Your task to perform on an android device: turn off notifications in google photos Image 0: 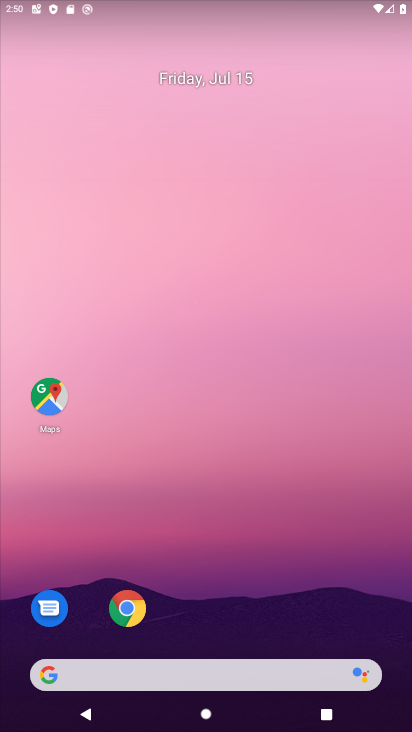
Step 0: drag from (215, 647) to (262, 115)
Your task to perform on an android device: turn off notifications in google photos Image 1: 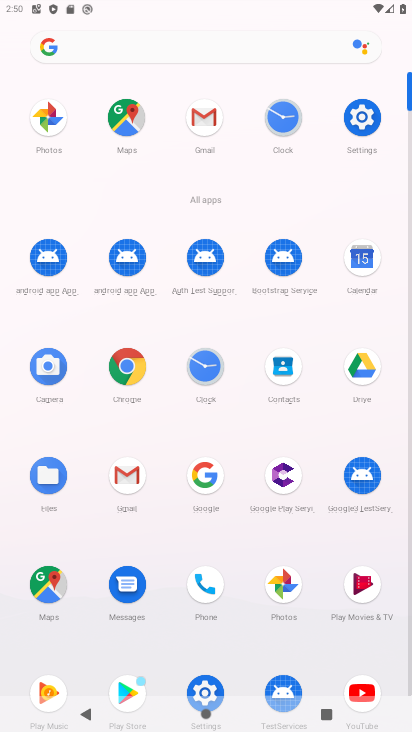
Step 1: click (283, 587)
Your task to perform on an android device: turn off notifications in google photos Image 2: 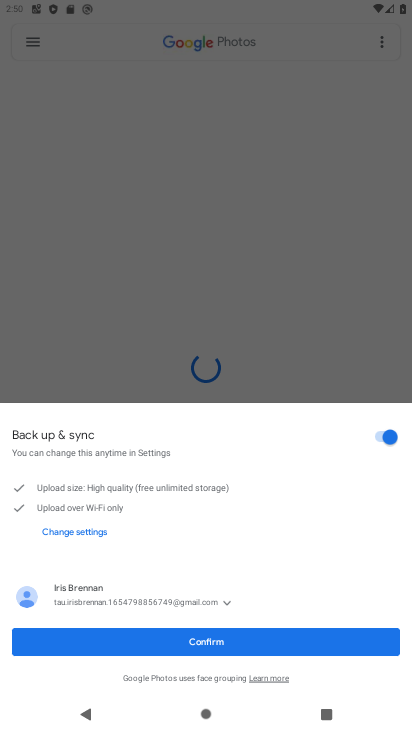
Step 2: click (245, 645)
Your task to perform on an android device: turn off notifications in google photos Image 3: 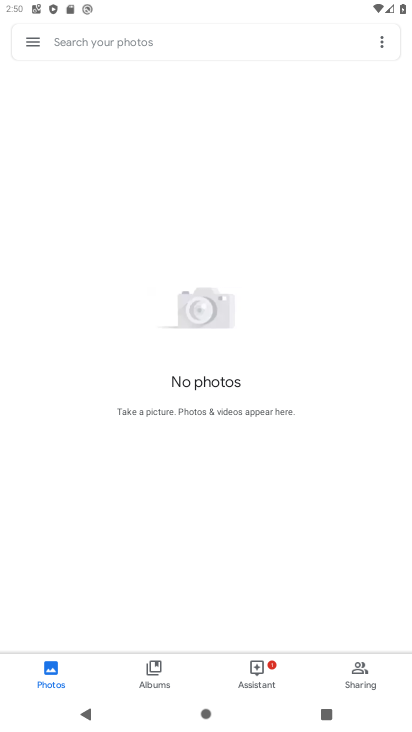
Step 3: click (35, 53)
Your task to perform on an android device: turn off notifications in google photos Image 4: 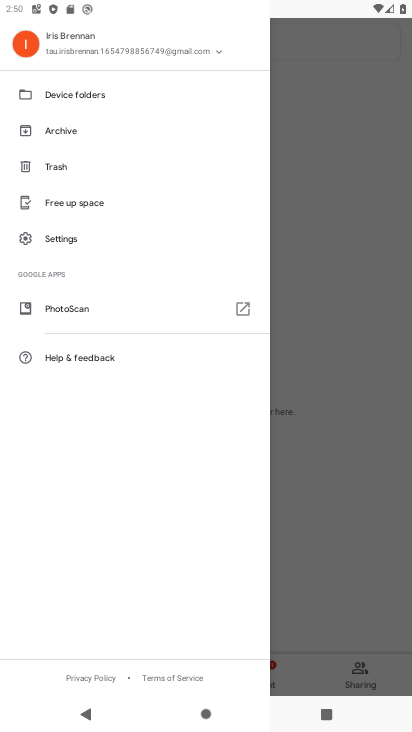
Step 4: click (115, 248)
Your task to perform on an android device: turn off notifications in google photos Image 5: 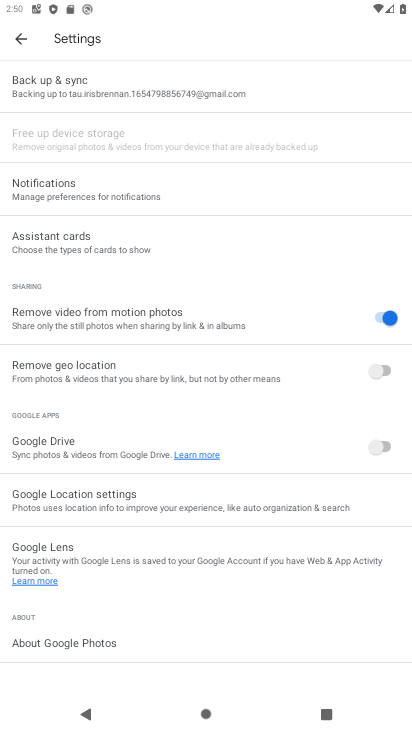
Step 5: click (115, 202)
Your task to perform on an android device: turn off notifications in google photos Image 6: 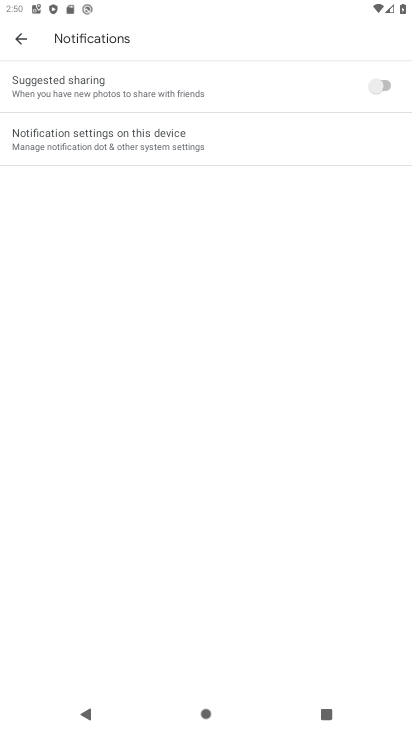
Step 6: click (202, 131)
Your task to perform on an android device: turn off notifications in google photos Image 7: 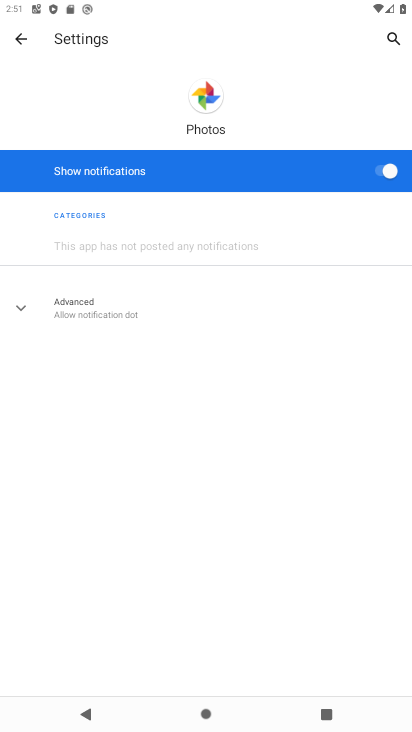
Step 7: click (372, 176)
Your task to perform on an android device: turn off notifications in google photos Image 8: 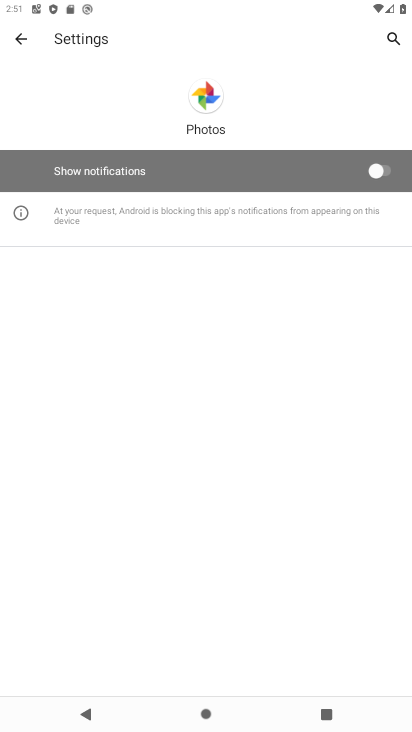
Step 8: task complete